Your task to perform on an android device: Search for pizza restaurants on Maps Image 0: 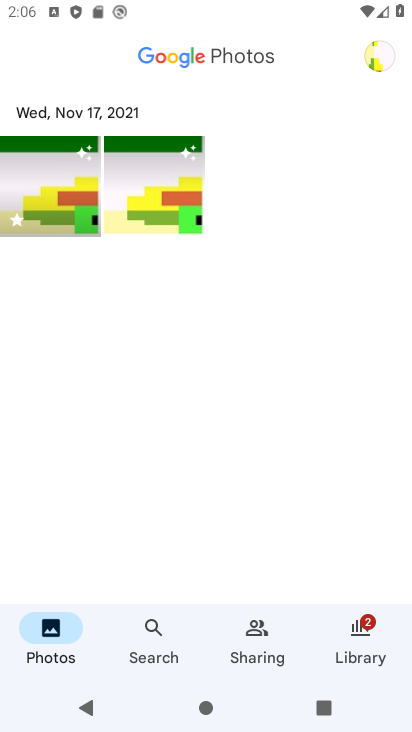
Step 0: press home button
Your task to perform on an android device: Search for pizza restaurants on Maps Image 1: 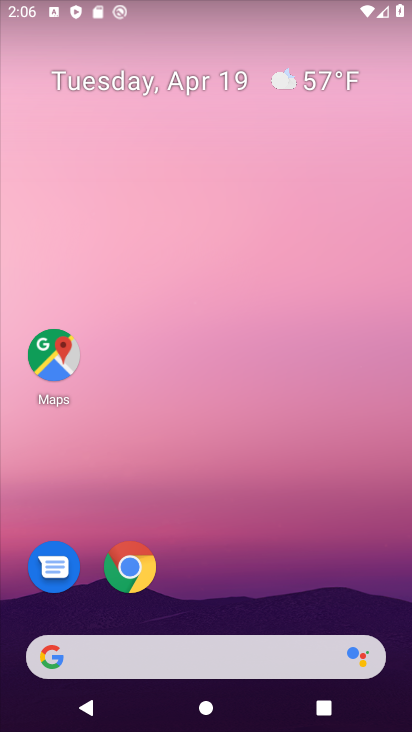
Step 1: click (55, 357)
Your task to perform on an android device: Search for pizza restaurants on Maps Image 2: 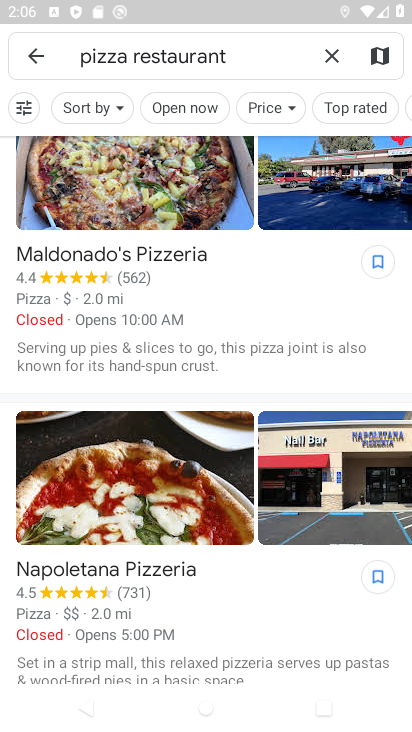
Step 2: task complete